Your task to perform on an android device: check battery use Image 0: 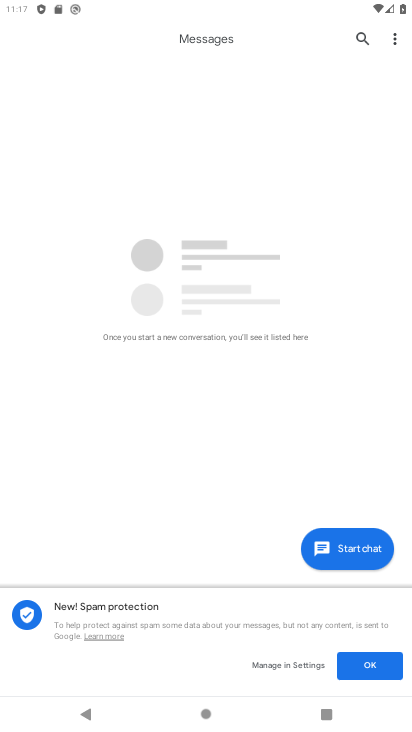
Step 0: press home button
Your task to perform on an android device: check battery use Image 1: 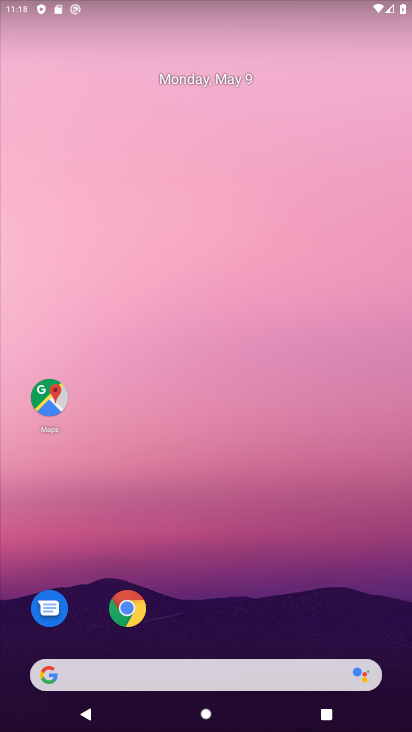
Step 1: drag from (95, 611) to (287, 197)
Your task to perform on an android device: check battery use Image 2: 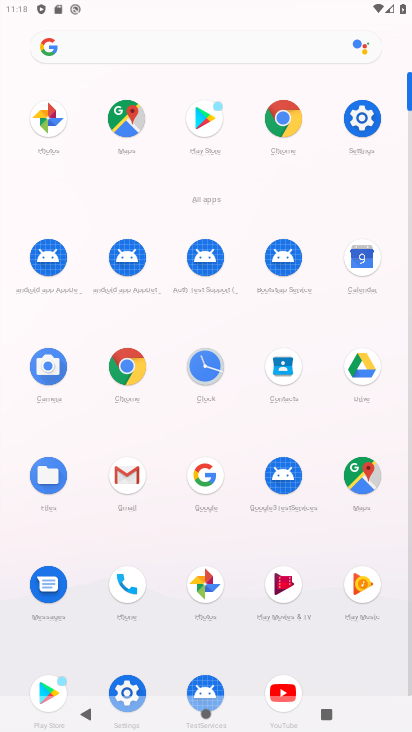
Step 2: click (367, 114)
Your task to perform on an android device: check battery use Image 3: 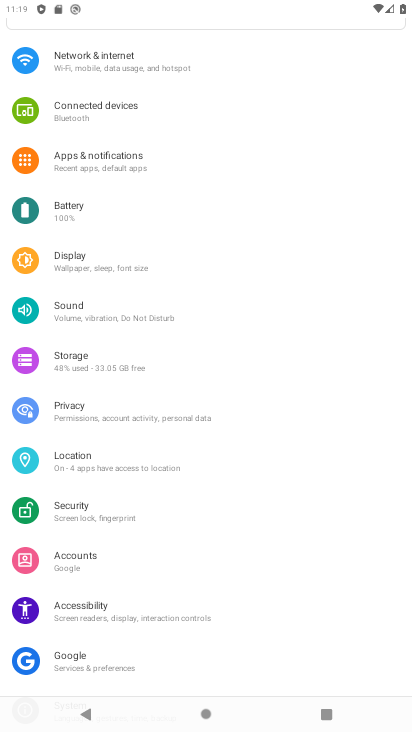
Step 3: click (101, 206)
Your task to perform on an android device: check battery use Image 4: 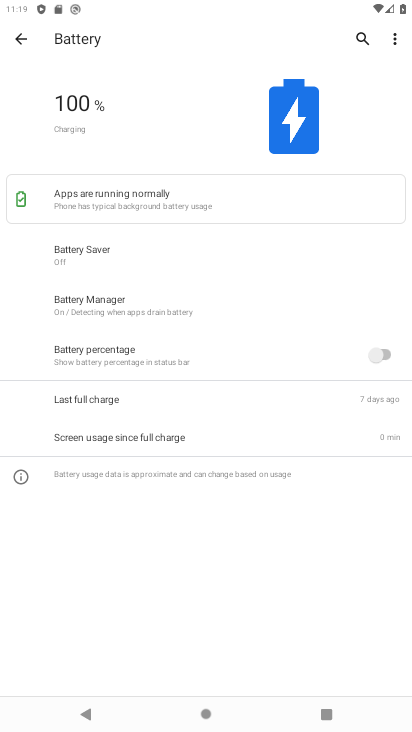
Step 4: task complete